Your task to perform on an android device: Open Maps and search for coffee Image 0: 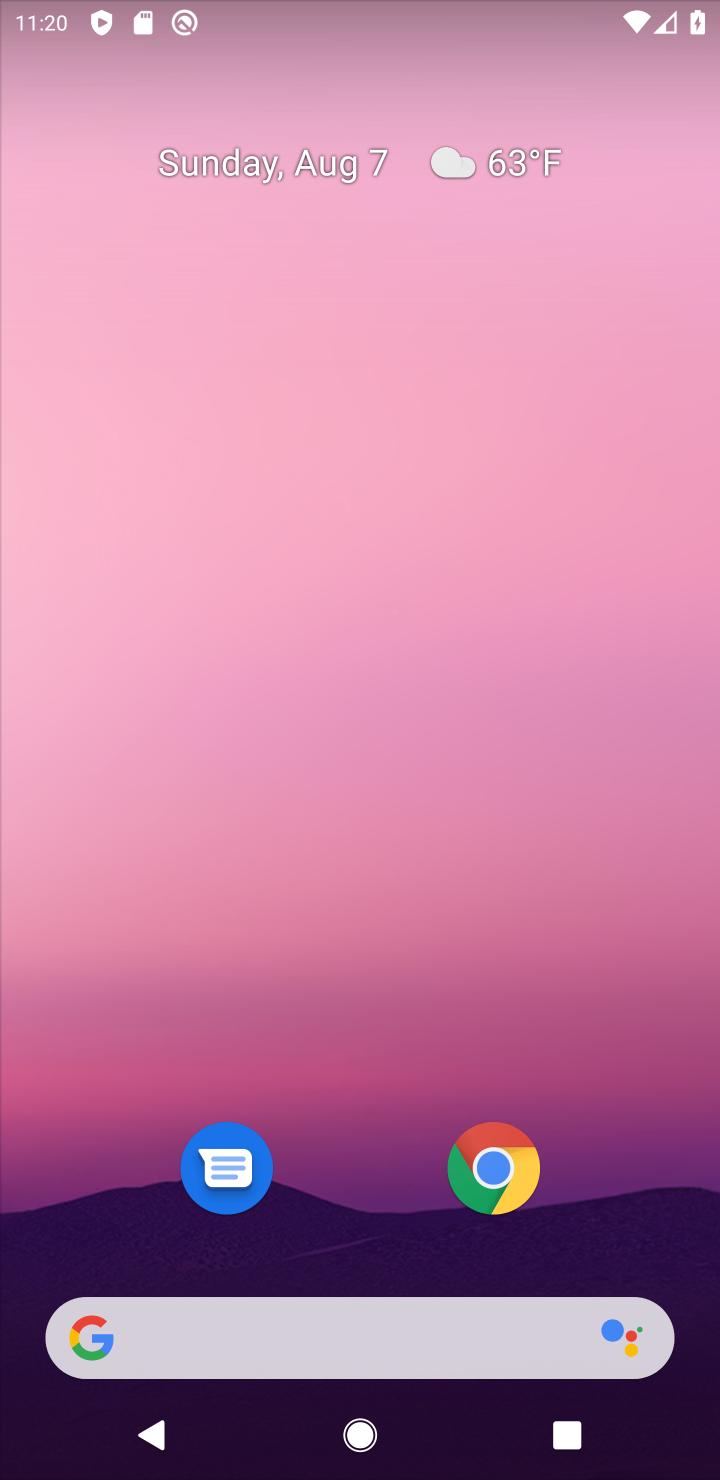
Step 0: drag from (349, 1169) to (296, 18)
Your task to perform on an android device: Open Maps and search for coffee Image 1: 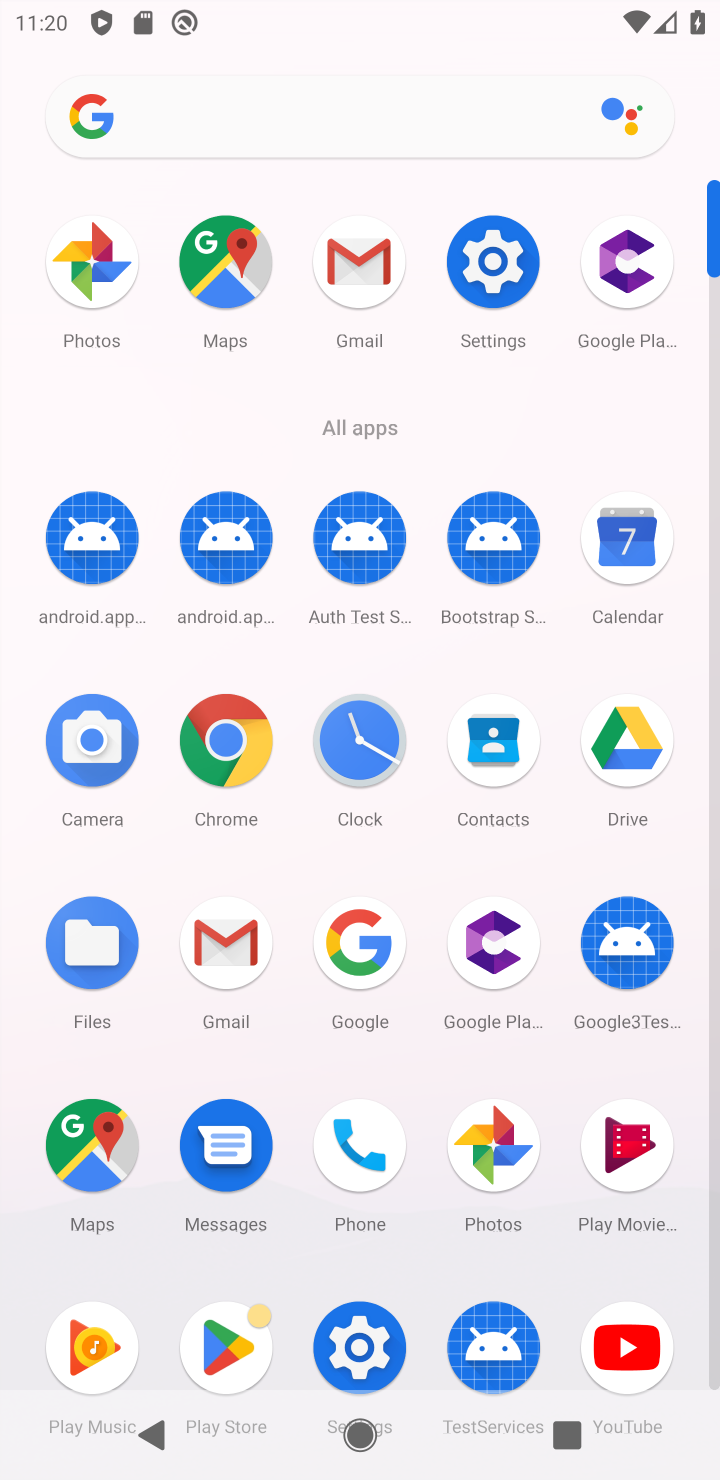
Step 1: click (205, 228)
Your task to perform on an android device: Open Maps and search for coffee Image 2: 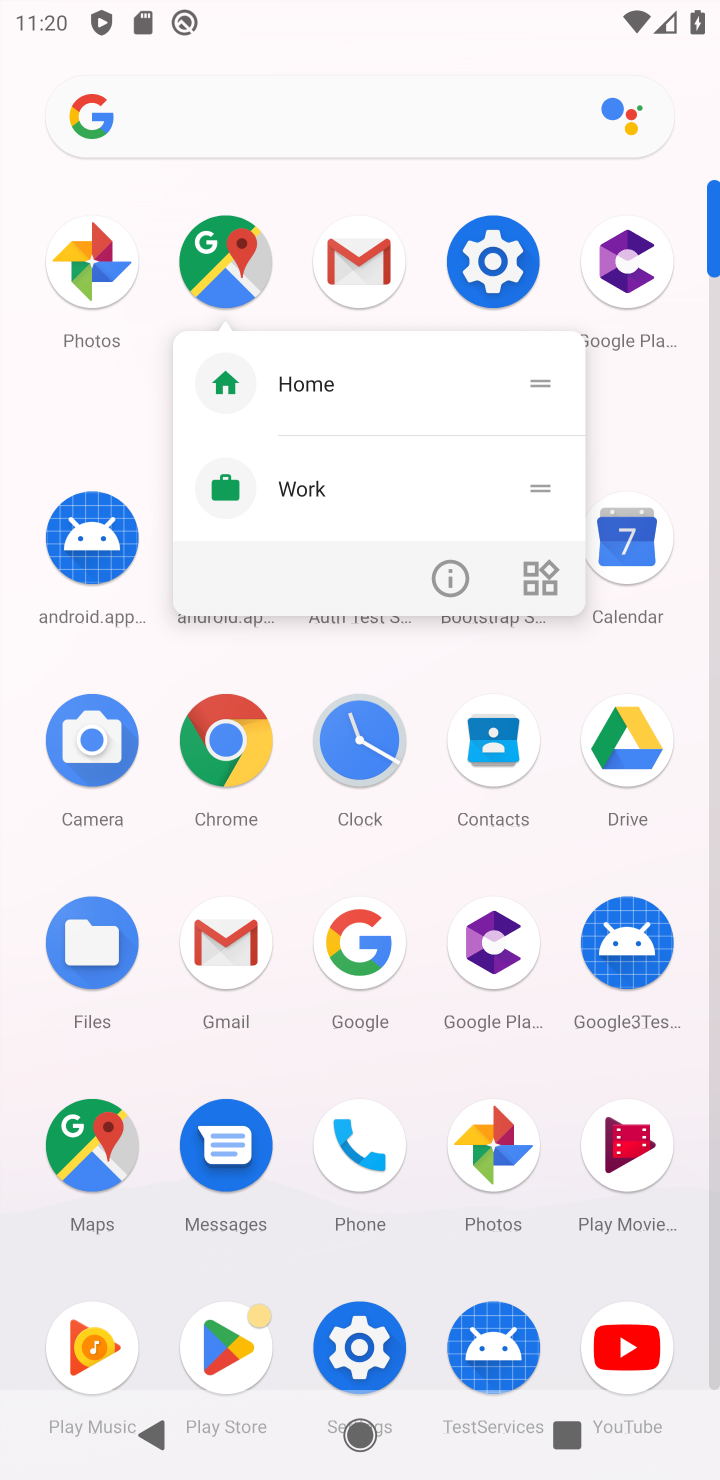
Step 2: click (255, 278)
Your task to perform on an android device: Open Maps and search for coffee Image 3: 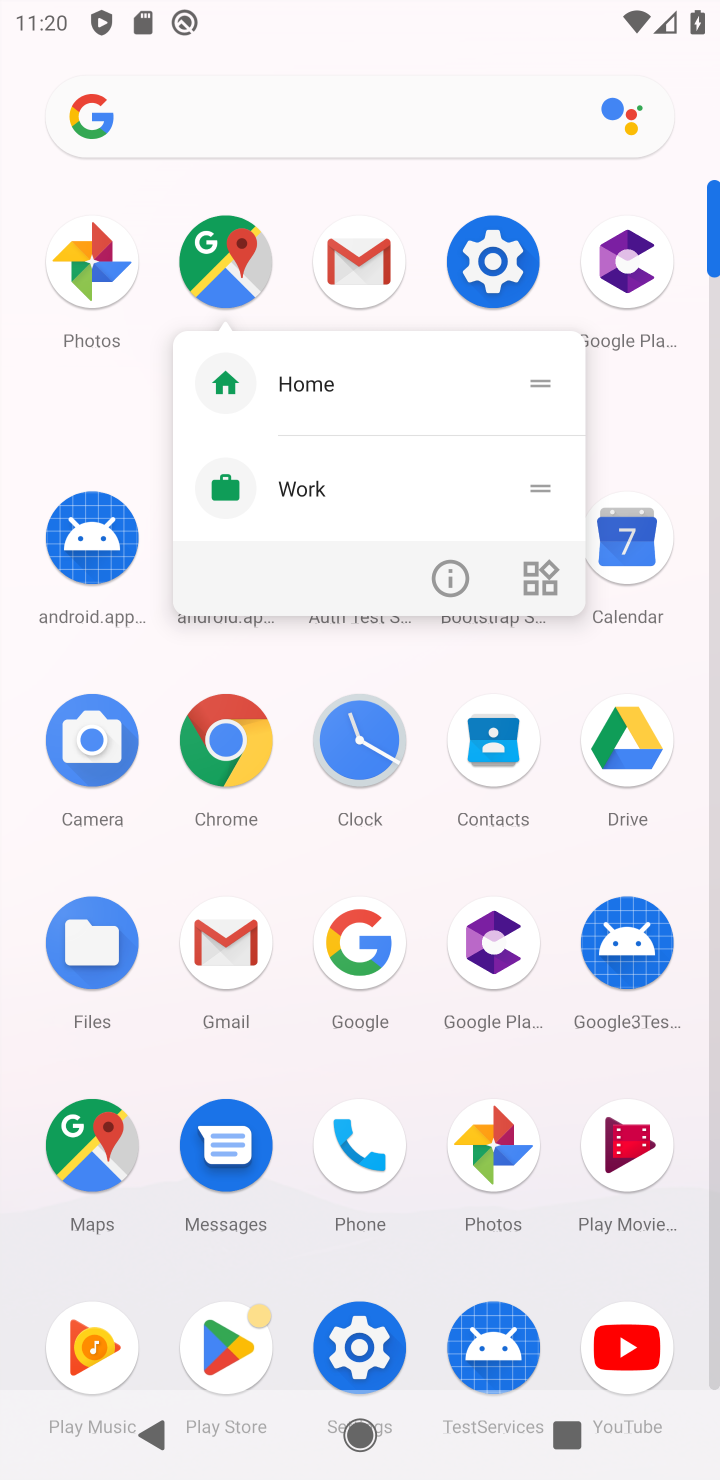
Step 3: click (255, 278)
Your task to perform on an android device: Open Maps and search for coffee Image 4: 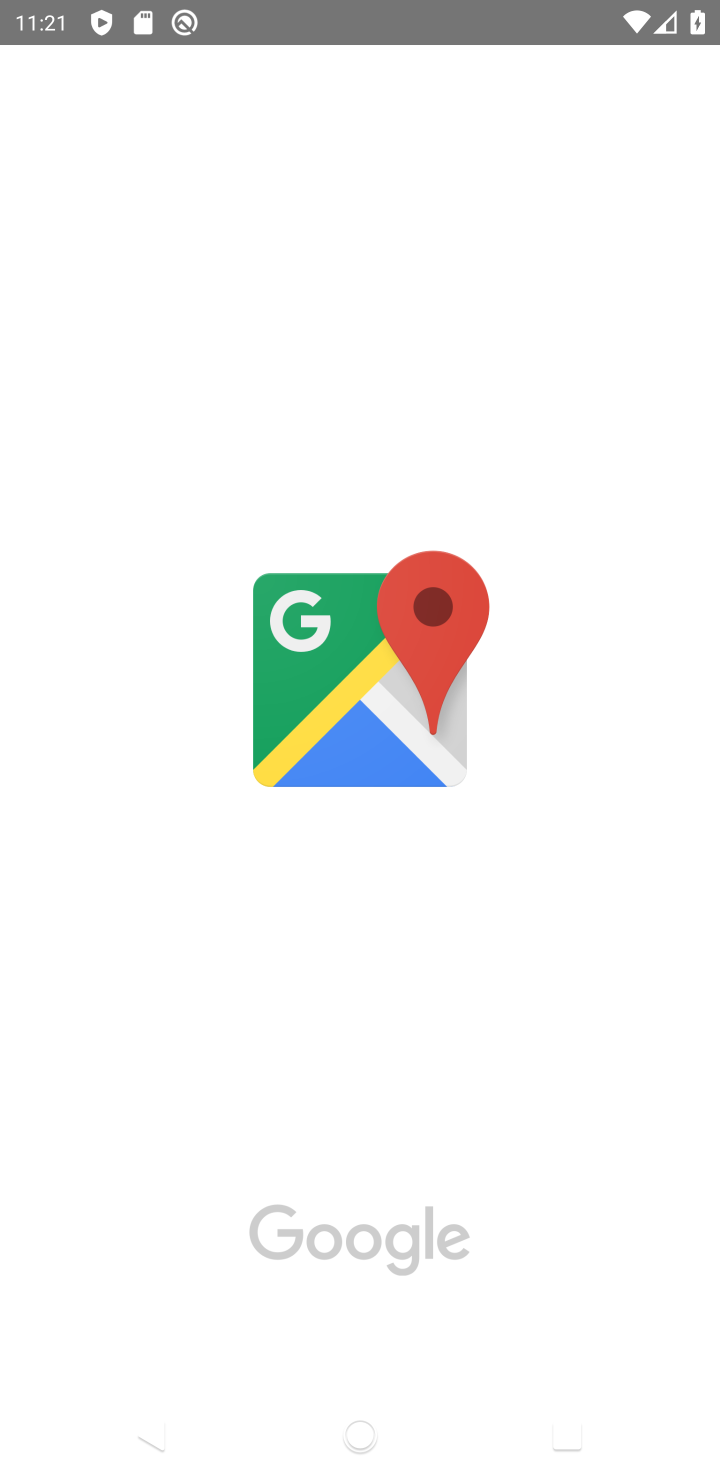
Step 4: task complete